Your task to perform on an android device: Search for pizza restaurants on Maps Image 0: 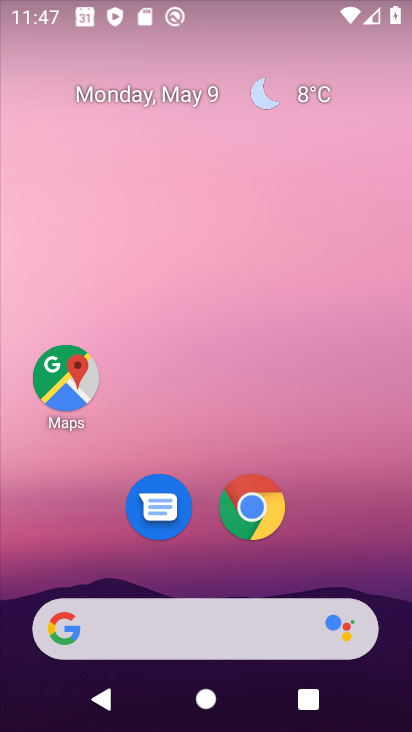
Step 0: click (53, 384)
Your task to perform on an android device: Search for pizza restaurants on Maps Image 1: 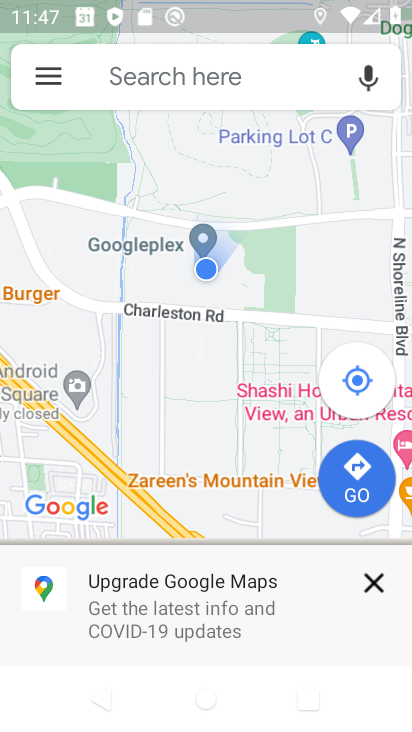
Step 1: click (216, 89)
Your task to perform on an android device: Search for pizza restaurants on Maps Image 2: 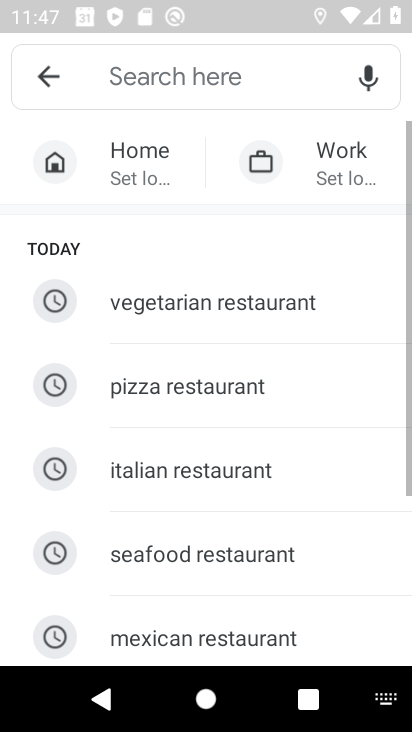
Step 2: click (220, 396)
Your task to perform on an android device: Search for pizza restaurants on Maps Image 3: 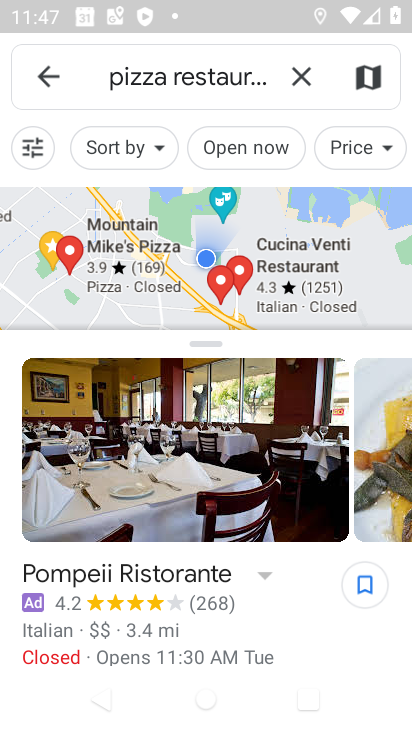
Step 3: task complete